Your task to perform on an android device: Go to Google maps Image 0: 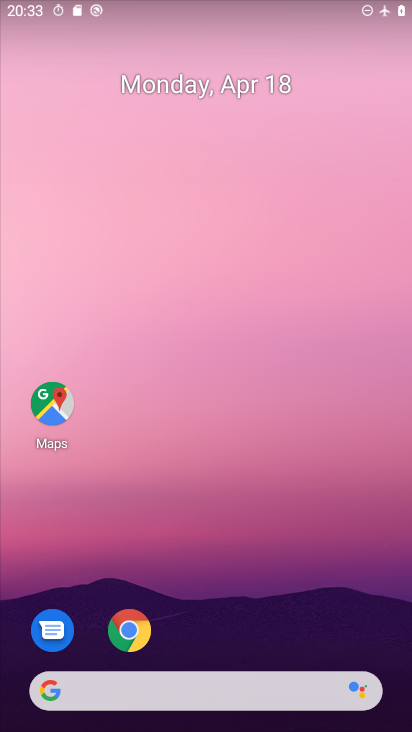
Step 0: drag from (214, 655) to (210, 604)
Your task to perform on an android device: Go to Google maps Image 1: 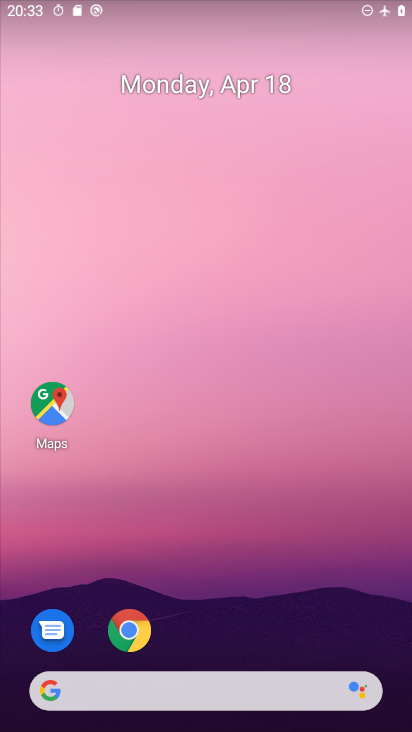
Step 1: click (61, 406)
Your task to perform on an android device: Go to Google maps Image 2: 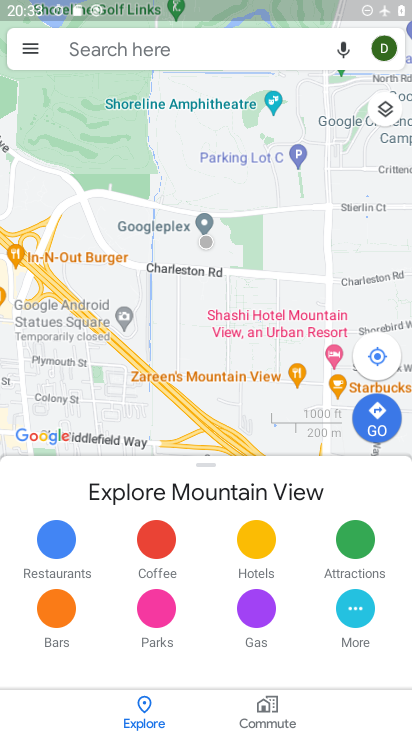
Step 2: task complete